Your task to perform on an android device: find photos in the google photos app Image 0: 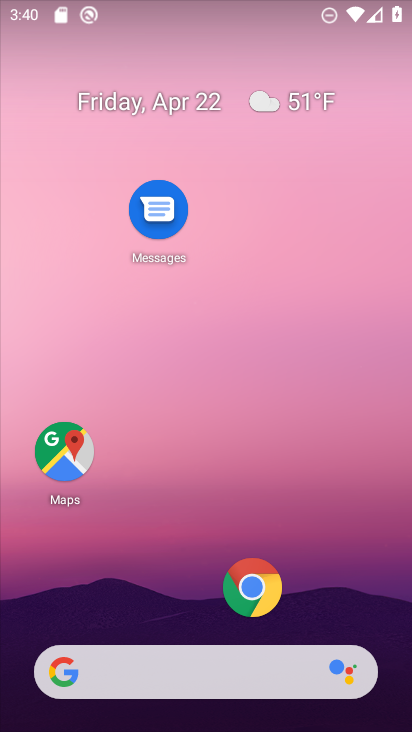
Step 0: drag from (202, 441) to (231, 182)
Your task to perform on an android device: find photos in the google photos app Image 1: 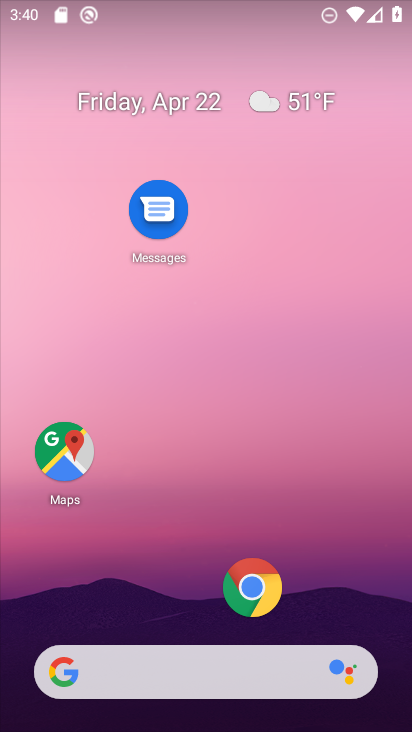
Step 1: drag from (201, 614) to (210, 177)
Your task to perform on an android device: find photos in the google photos app Image 2: 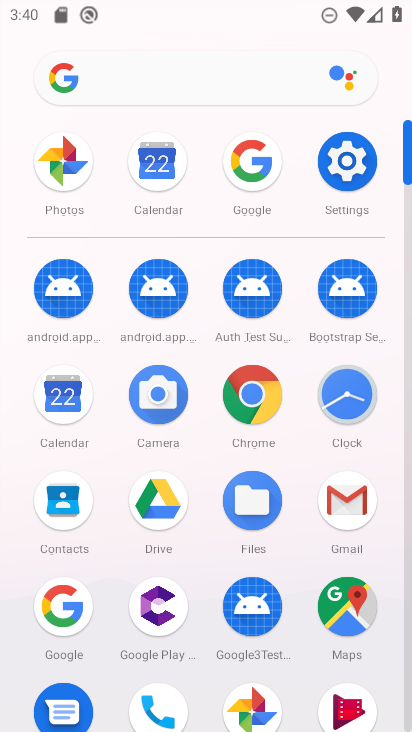
Step 2: drag from (195, 611) to (220, 324)
Your task to perform on an android device: find photos in the google photos app Image 3: 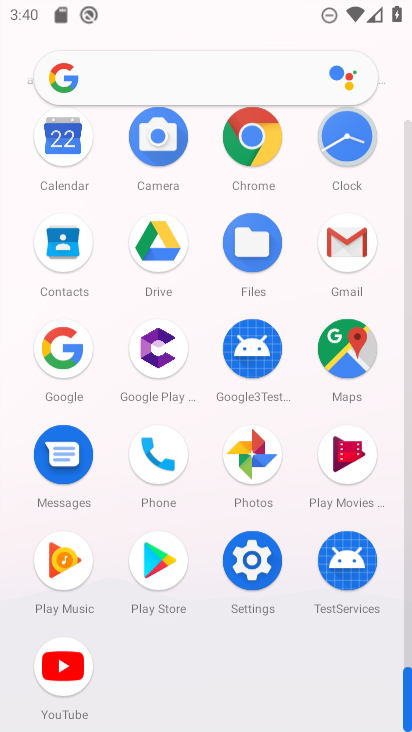
Step 3: click (244, 442)
Your task to perform on an android device: find photos in the google photos app Image 4: 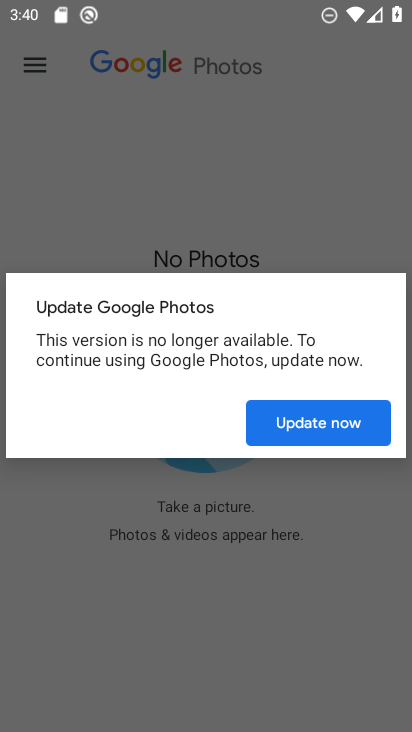
Step 4: click (291, 430)
Your task to perform on an android device: find photos in the google photos app Image 5: 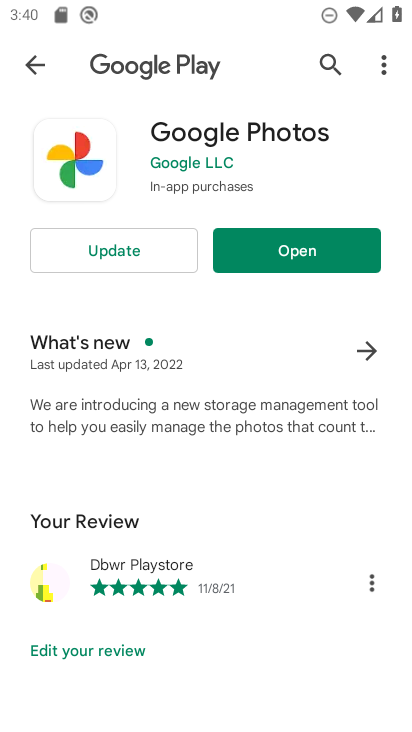
Step 5: click (247, 249)
Your task to perform on an android device: find photos in the google photos app Image 6: 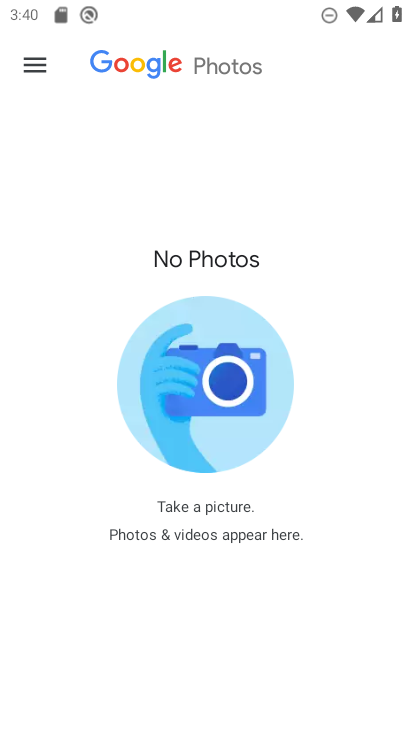
Step 6: click (30, 65)
Your task to perform on an android device: find photos in the google photos app Image 7: 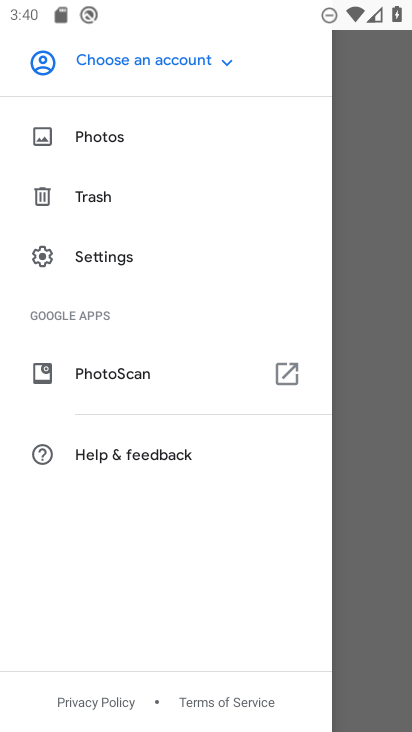
Step 7: click (110, 141)
Your task to perform on an android device: find photos in the google photos app Image 8: 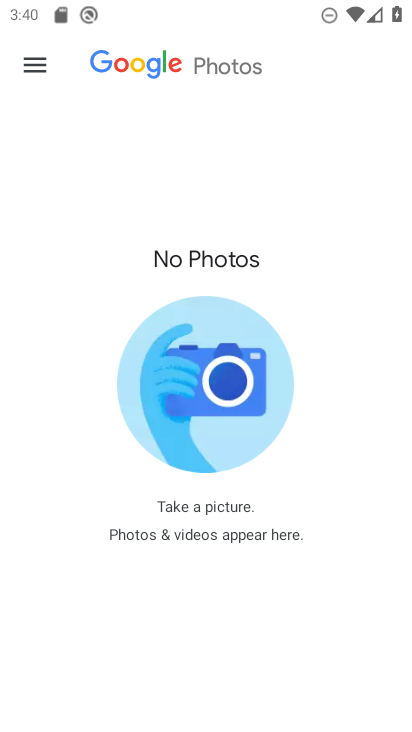
Step 8: task complete